Your task to perform on an android device: Add macbook pro to the cart on costco Image 0: 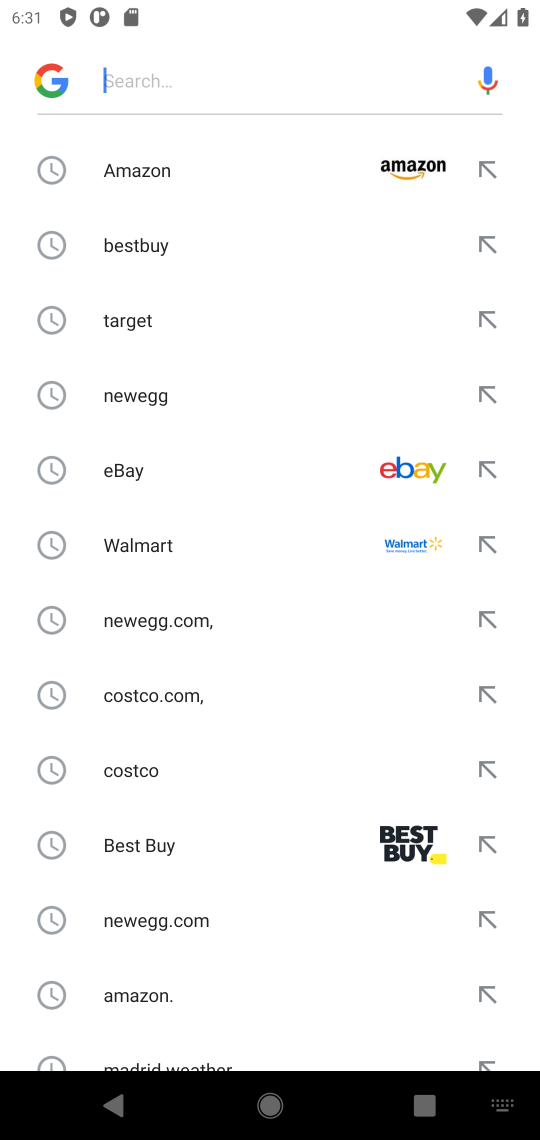
Step 0: press home button
Your task to perform on an android device: Add macbook pro to the cart on costco Image 1: 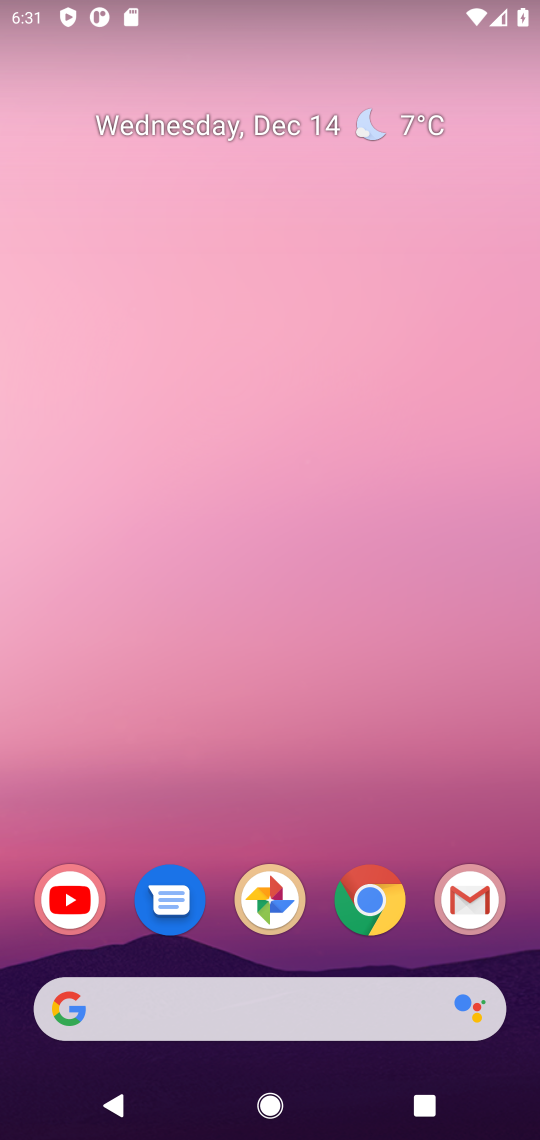
Step 1: click (250, 1026)
Your task to perform on an android device: Add macbook pro to the cart on costco Image 2: 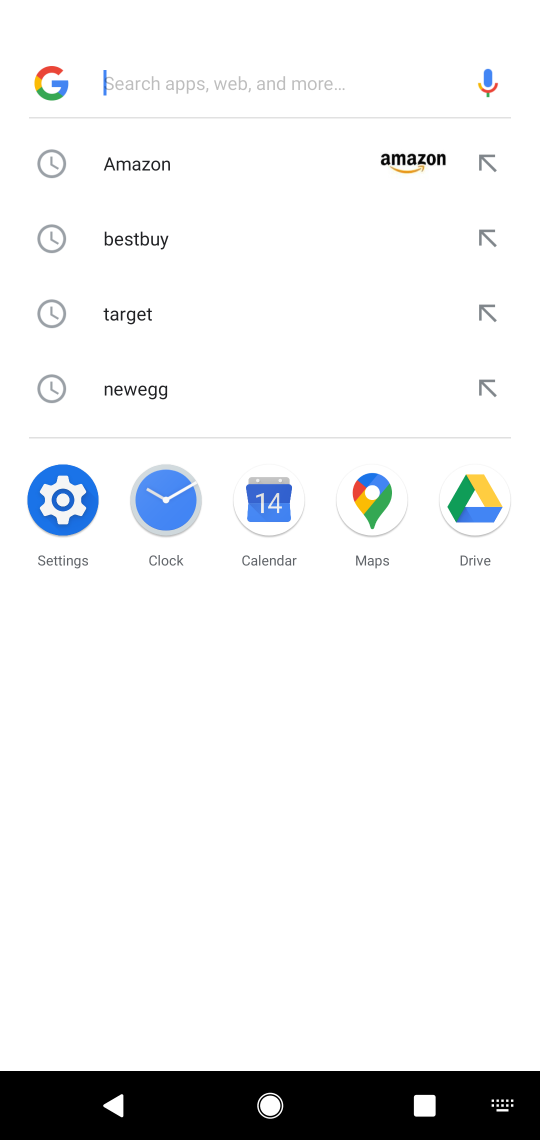
Step 2: type "costco"
Your task to perform on an android device: Add macbook pro to the cart on costco Image 3: 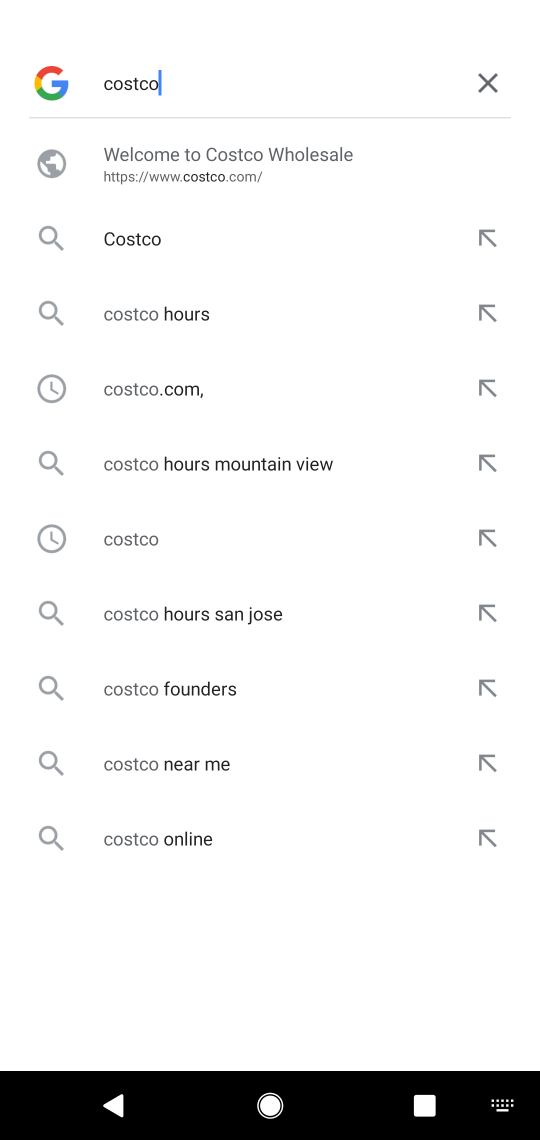
Step 3: click (236, 171)
Your task to perform on an android device: Add macbook pro to the cart on costco Image 4: 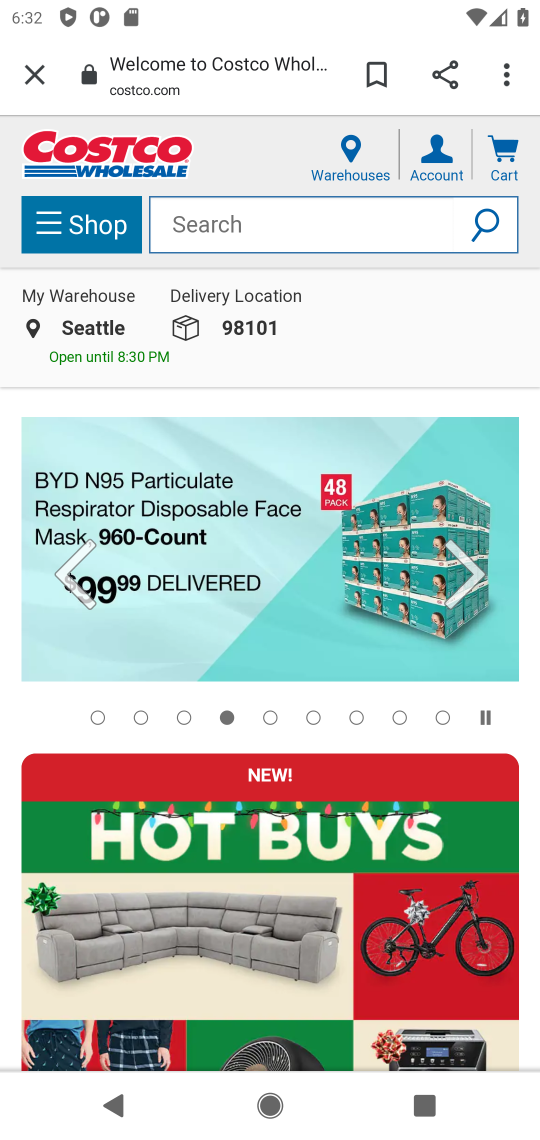
Step 4: click (355, 220)
Your task to perform on an android device: Add macbook pro to the cart on costco Image 5: 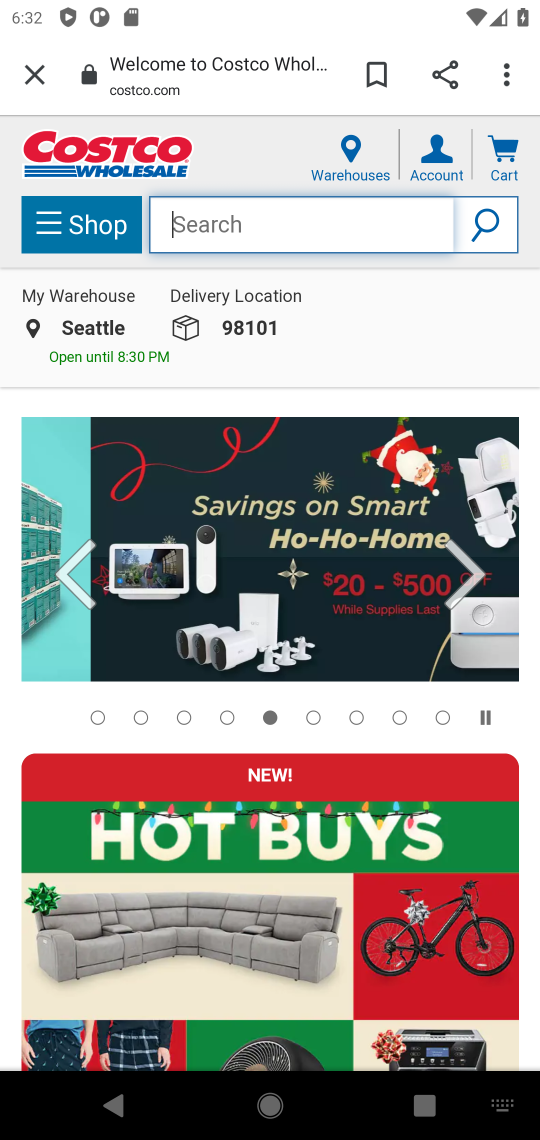
Step 5: type "macbook pro"
Your task to perform on an android device: Add macbook pro to the cart on costco Image 6: 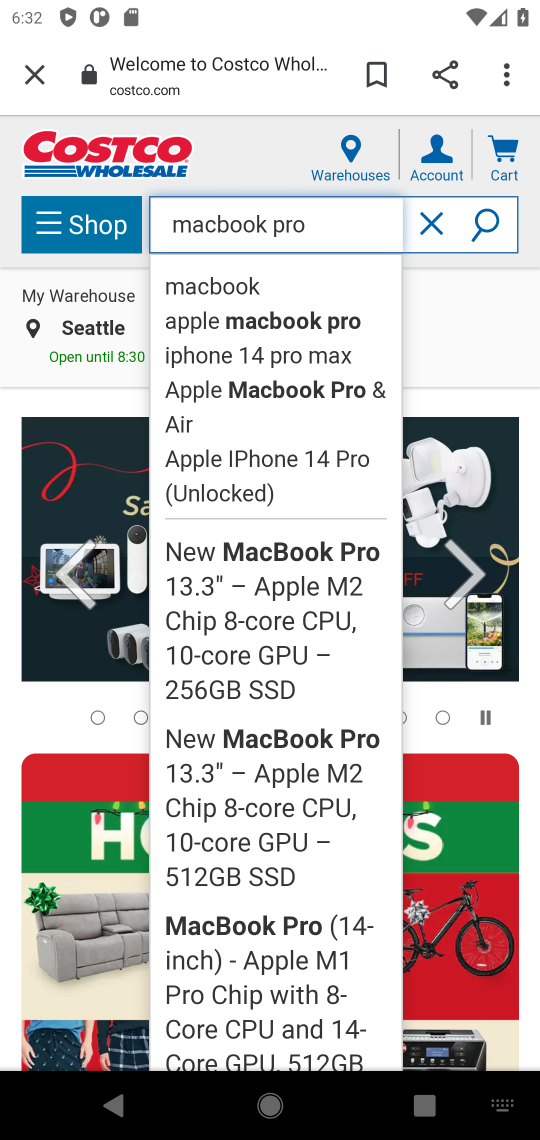
Step 6: click (490, 220)
Your task to perform on an android device: Add macbook pro to the cart on costco Image 7: 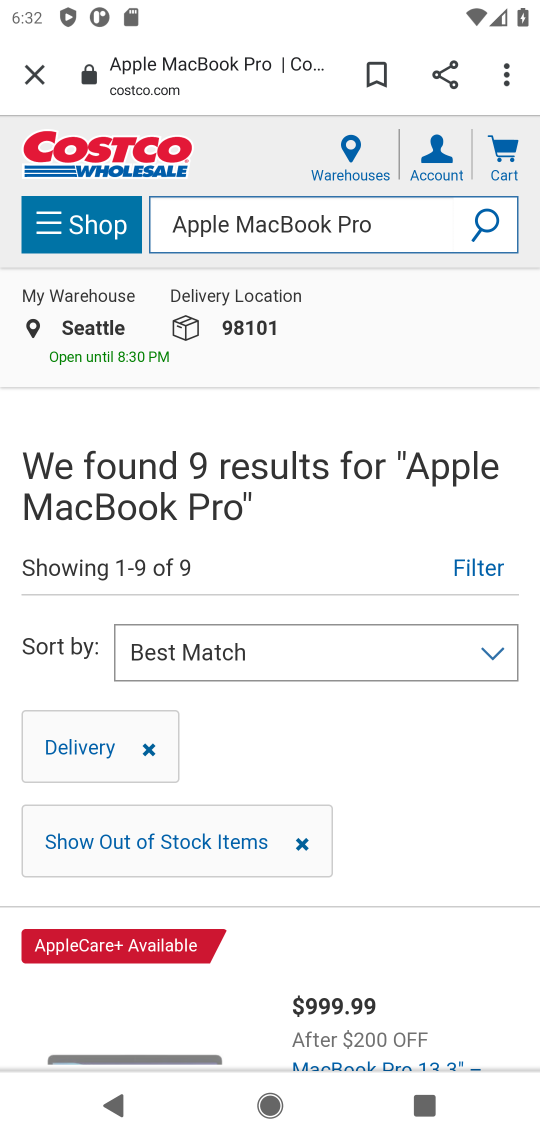
Step 7: task complete